Your task to perform on an android device: What is the news today? Image 0: 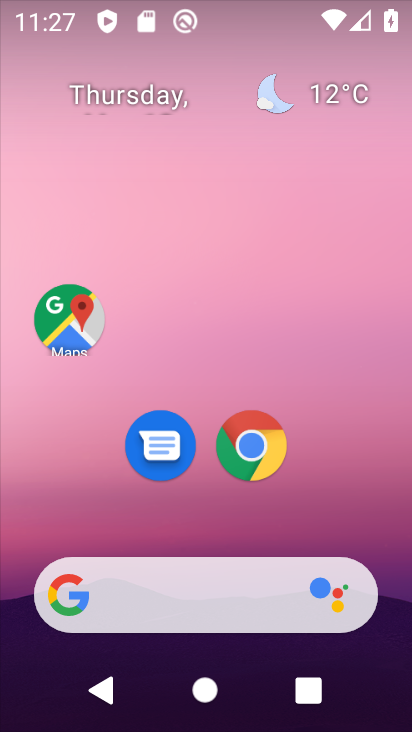
Step 0: drag from (43, 215) to (111, 11)
Your task to perform on an android device: What is the news today? Image 1: 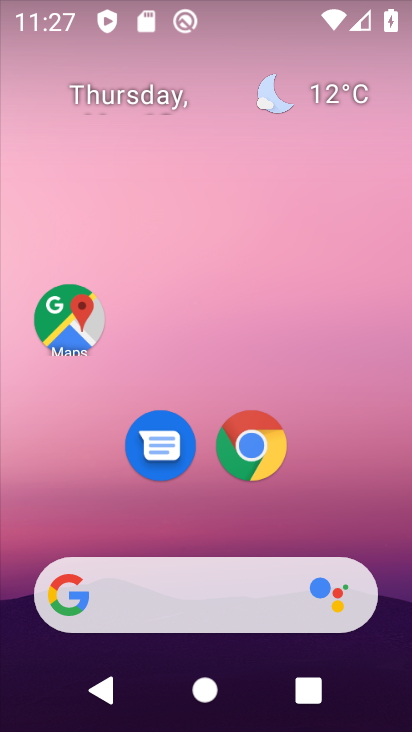
Step 1: task complete